Your task to perform on an android device: open app "Microsoft Outlook" (install if not already installed) and enter user name: "brand@gmail.com" and password: "persuasiveness" Image 0: 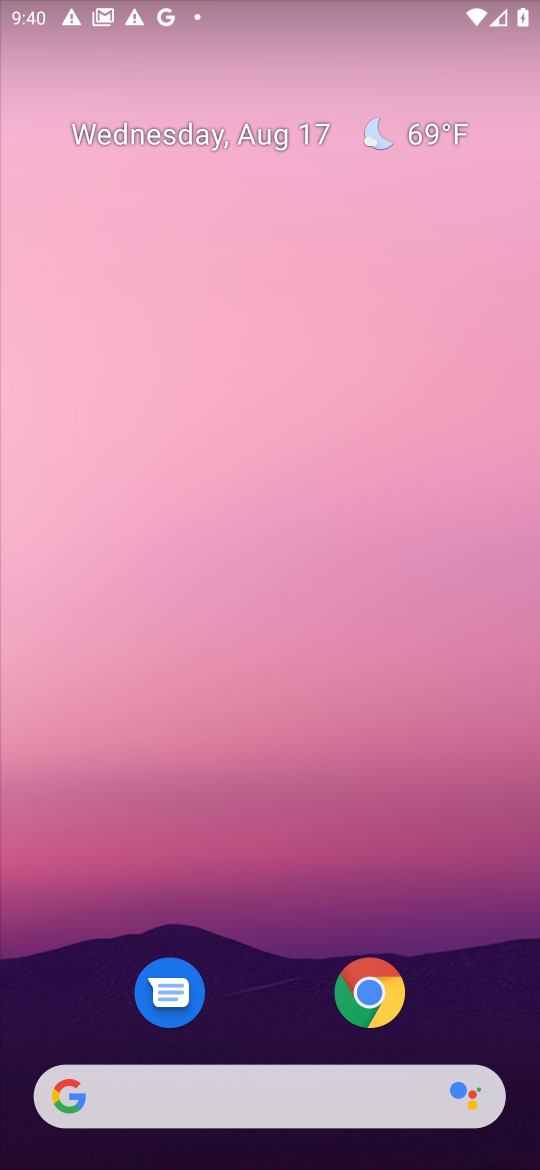
Step 0: drag from (479, 1010) to (311, 90)
Your task to perform on an android device: open app "Microsoft Outlook" (install if not already installed) and enter user name: "brand@gmail.com" and password: "persuasiveness" Image 1: 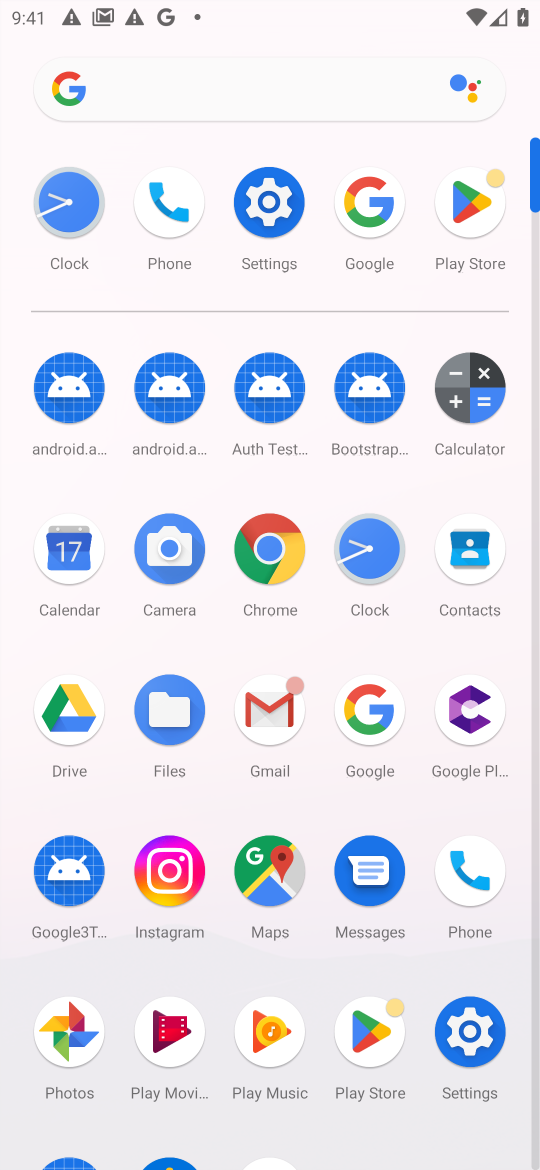
Step 1: click (356, 1054)
Your task to perform on an android device: open app "Microsoft Outlook" (install if not already installed) and enter user name: "brand@gmail.com" and password: "persuasiveness" Image 2: 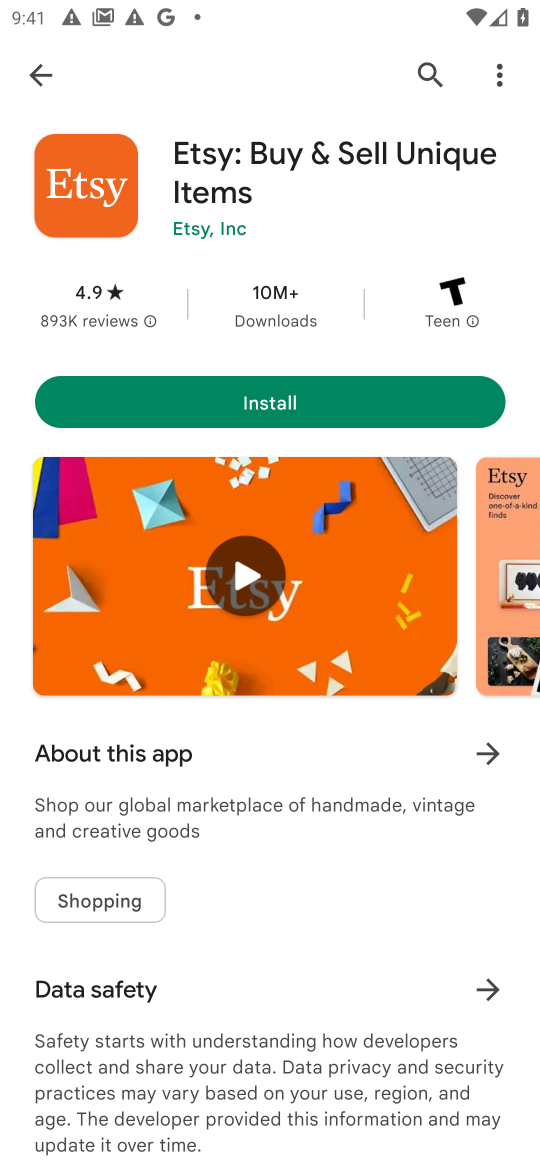
Step 2: press back button
Your task to perform on an android device: open app "Microsoft Outlook" (install if not already installed) and enter user name: "brand@gmail.com" and password: "persuasiveness" Image 3: 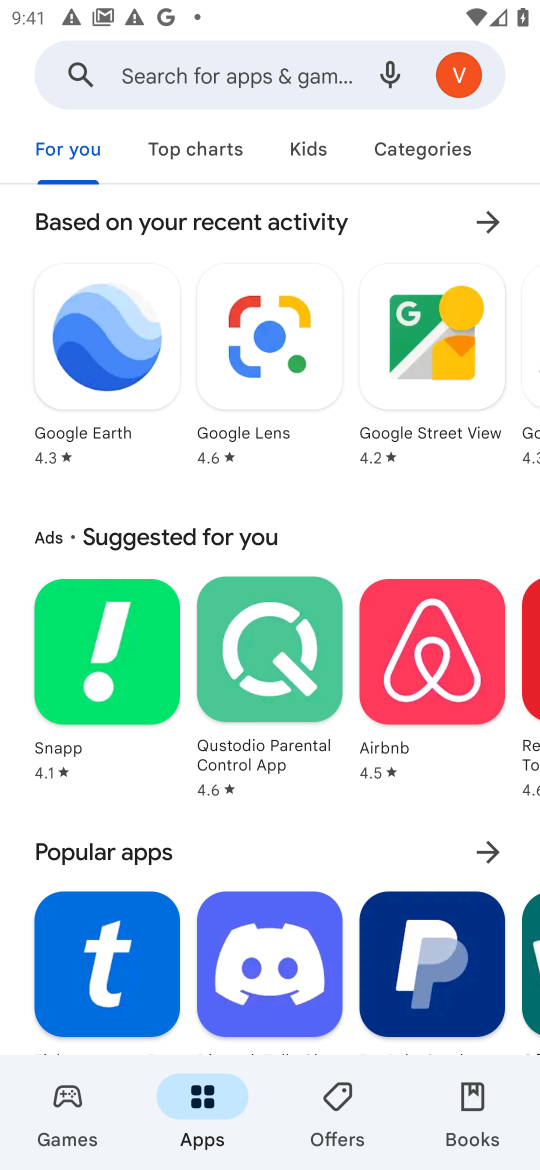
Step 3: click (221, 80)
Your task to perform on an android device: open app "Microsoft Outlook" (install if not already installed) and enter user name: "brand@gmail.com" and password: "persuasiveness" Image 4: 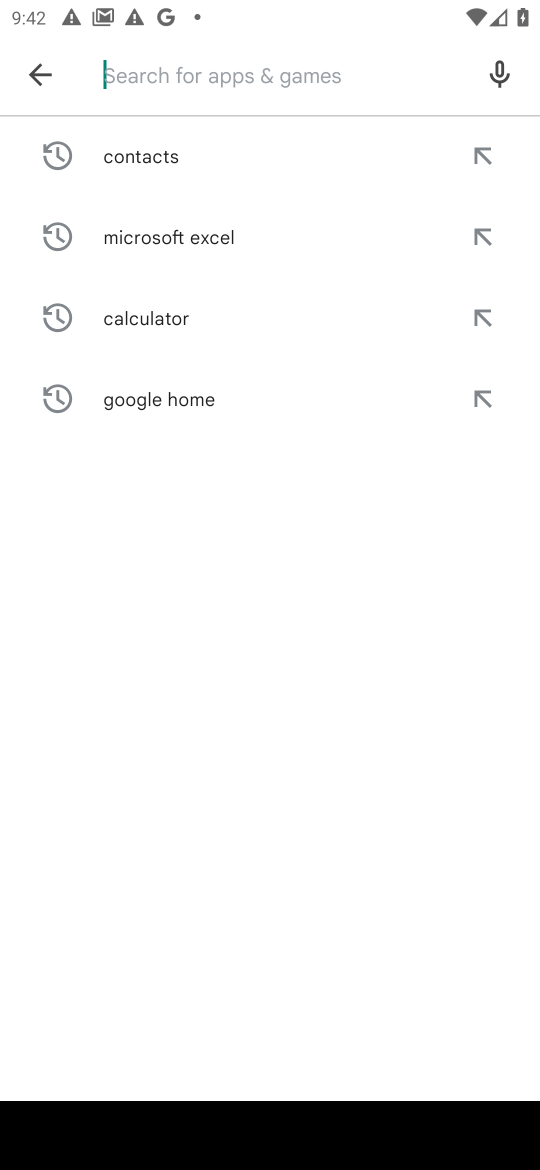
Step 4: type "Microsoft Outlook"
Your task to perform on an android device: open app "Microsoft Outlook" (install if not already installed) and enter user name: "brand@gmail.com" and password: "persuasiveness" Image 5: 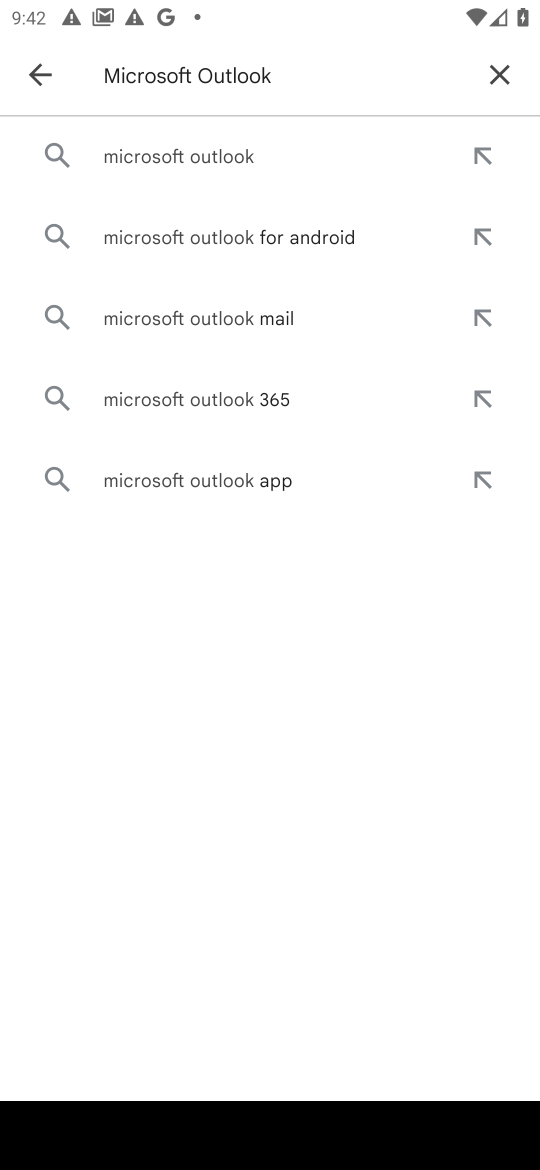
Step 5: click (206, 161)
Your task to perform on an android device: open app "Microsoft Outlook" (install if not already installed) and enter user name: "brand@gmail.com" and password: "persuasiveness" Image 6: 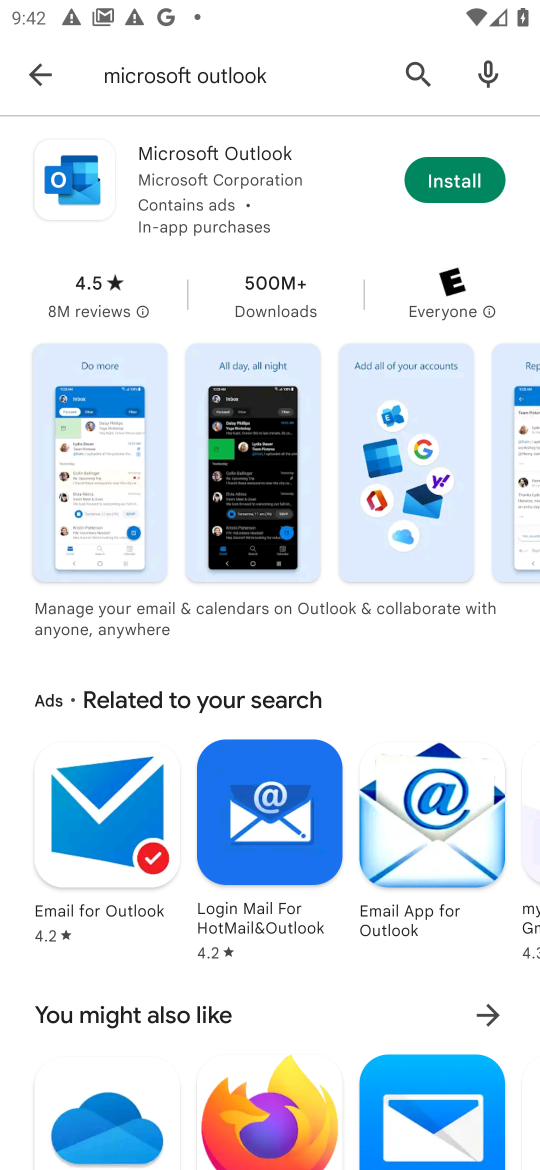
Step 6: task complete